Your task to perform on an android device: turn off sleep mode Image 0: 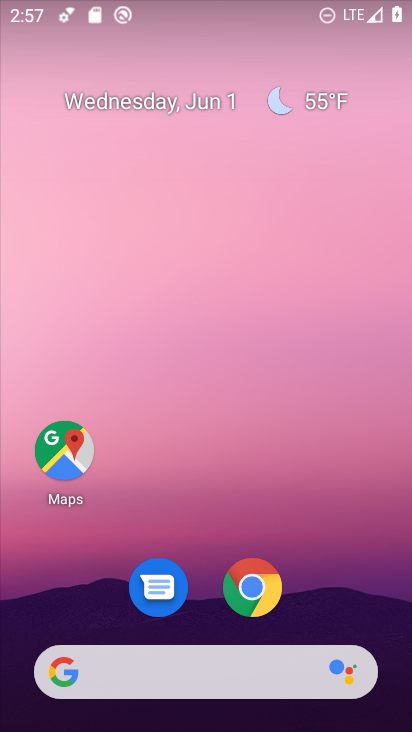
Step 0: drag from (171, 651) to (169, 97)
Your task to perform on an android device: turn off sleep mode Image 1: 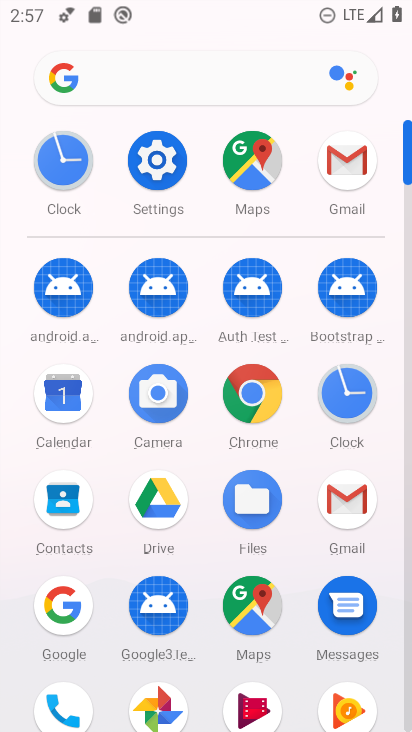
Step 1: click (158, 188)
Your task to perform on an android device: turn off sleep mode Image 2: 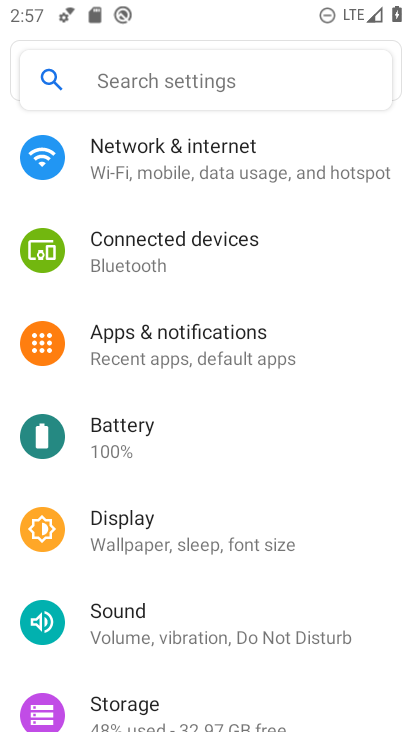
Step 2: click (123, 521)
Your task to perform on an android device: turn off sleep mode Image 3: 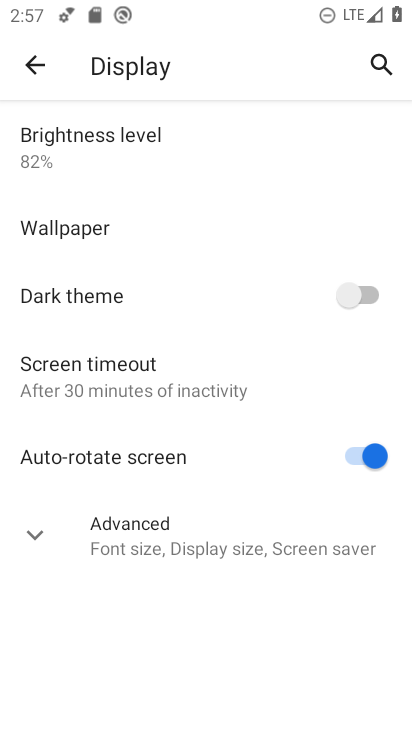
Step 3: click (131, 532)
Your task to perform on an android device: turn off sleep mode Image 4: 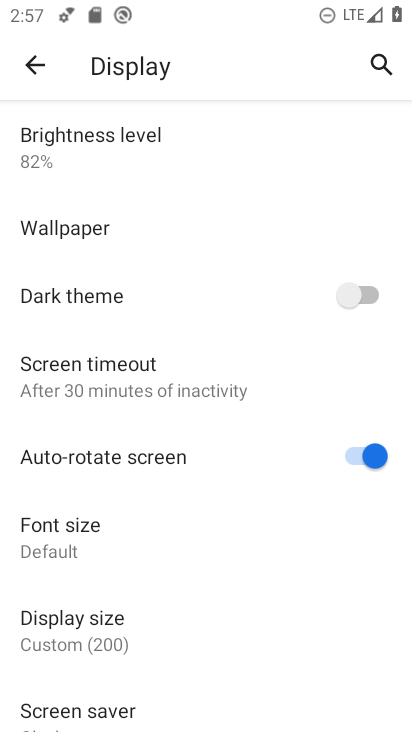
Step 4: task complete